Your task to perform on an android device: Go to settings Image 0: 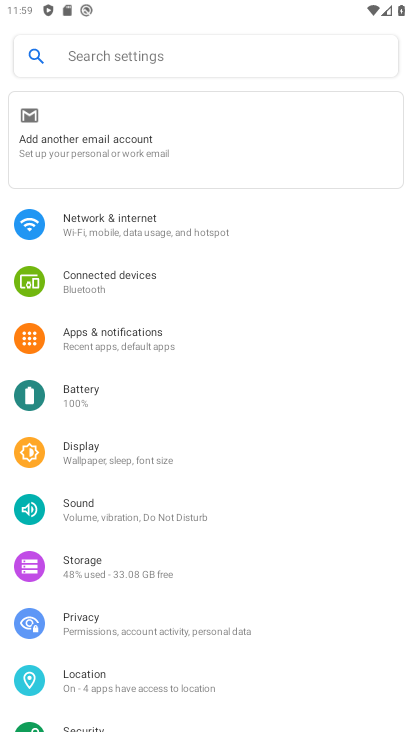
Step 0: drag from (218, 581) to (268, 303)
Your task to perform on an android device: Go to settings Image 1: 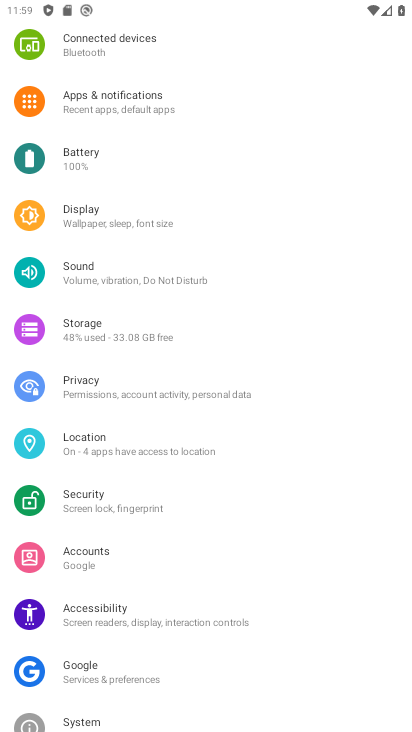
Step 1: task complete